Your task to perform on an android device: refresh tabs in the chrome app Image 0: 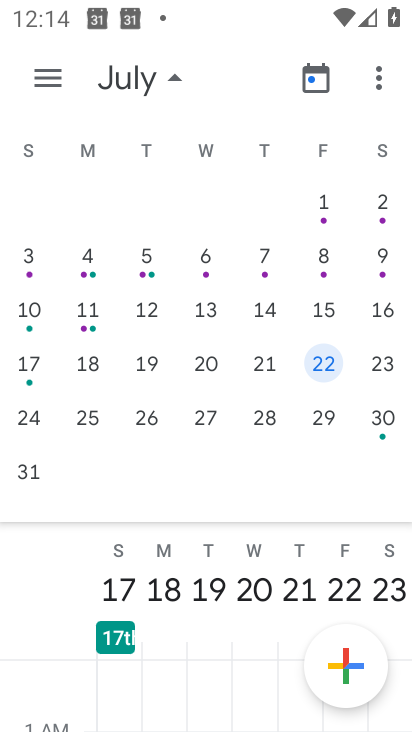
Step 0: press home button
Your task to perform on an android device: refresh tabs in the chrome app Image 1: 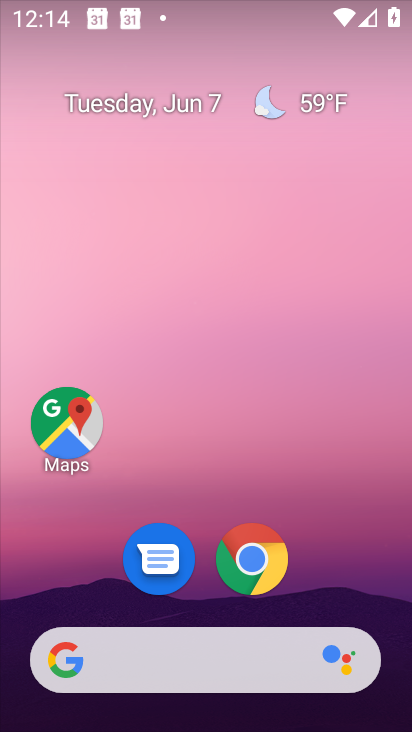
Step 1: click (273, 567)
Your task to perform on an android device: refresh tabs in the chrome app Image 2: 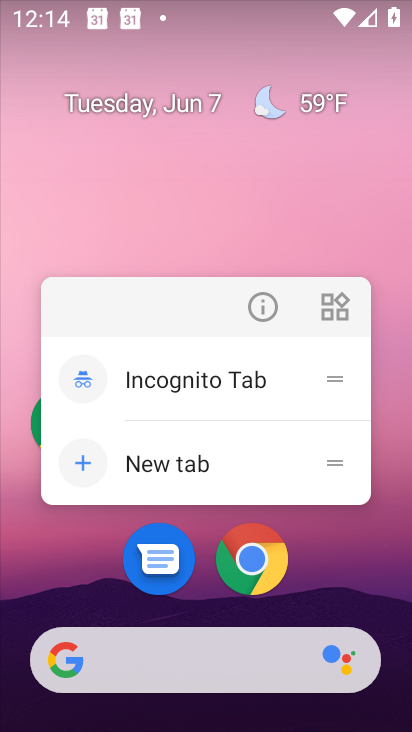
Step 2: click (247, 546)
Your task to perform on an android device: refresh tabs in the chrome app Image 3: 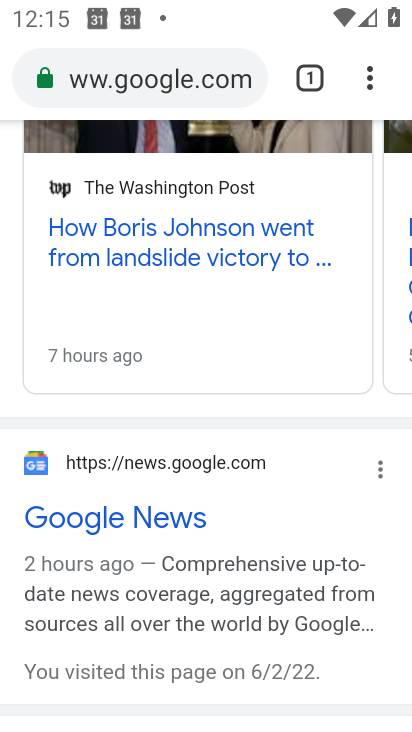
Step 3: click (371, 75)
Your task to perform on an android device: refresh tabs in the chrome app Image 4: 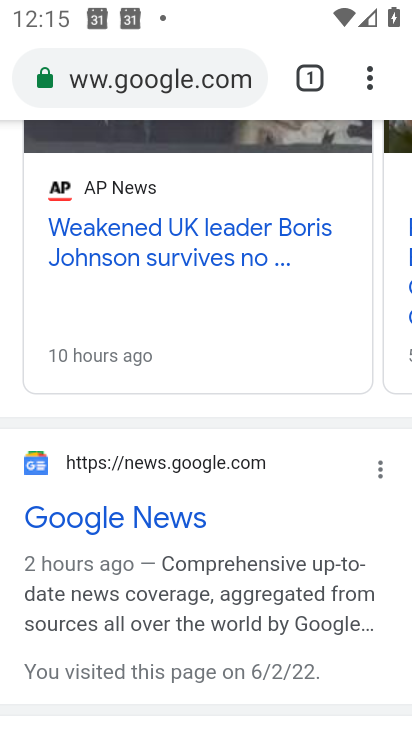
Step 4: task complete